Your task to perform on an android device: Open calendar and show me the second week of next month Image 0: 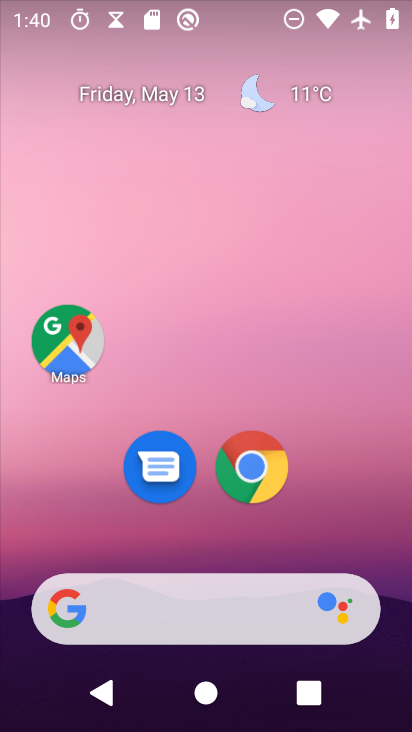
Step 0: drag from (318, 477) to (250, 71)
Your task to perform on an android device: Open calendar and show me the second week of next month Image 1: 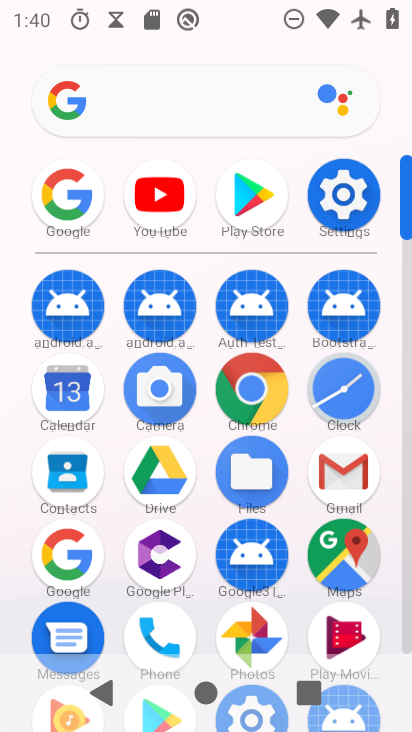
Step 1: click (54, 393)
Your task to perform on an android device: Open calendar and show me the second week of next month Image 2: 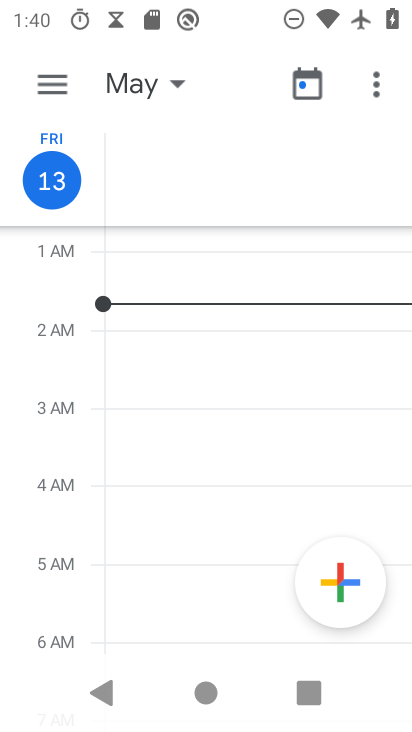
Step 2: click (54, 95)
Your task to perform on an android device: Open calendar and show me the second week of next month Image 3: 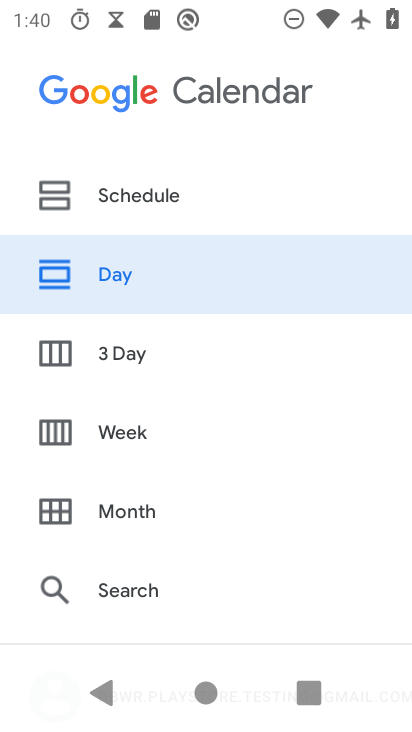
Step 3: click (135, 428)
Your task to perform on an android device: Open calendar and show me the second week of next month Image 4: 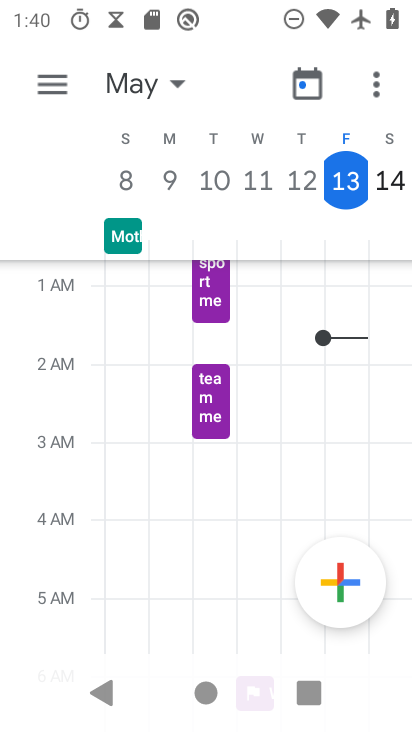
Step 4: click (190, 81)
Your task to perform on an android device: Open calendar and show me the second week of next month Image 5: 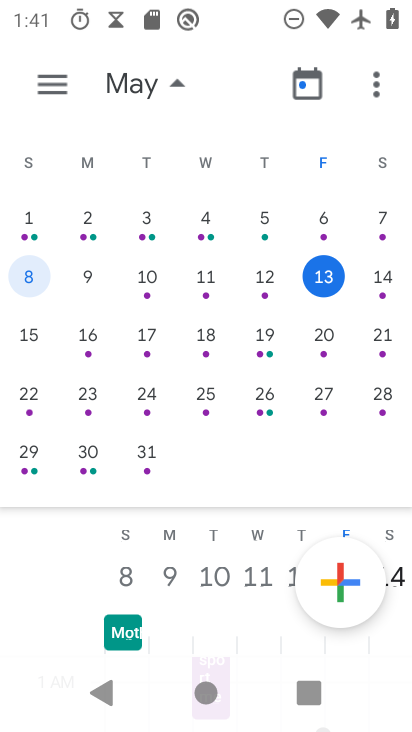
Step 5: drag from (356, 307) to (0, 332)
Your task to perform on an android device: Open calendar and show me the second week of next month Image 6: 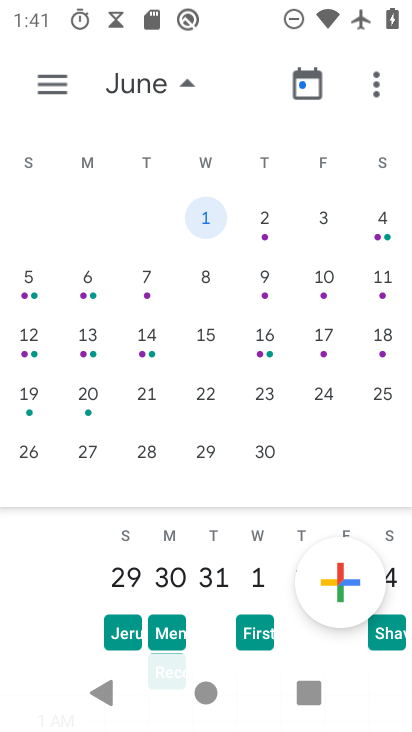
Step 6: click (35, 284)
Your task to perform on an android device: Open calendar and show me the second week of next month Image 7: 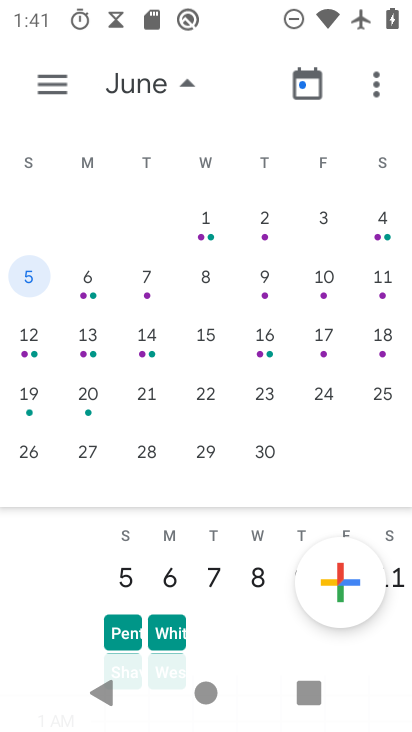
Step 7: task complete